Your task to perform on an android device: turn on javascript in the chrome app Image 0: 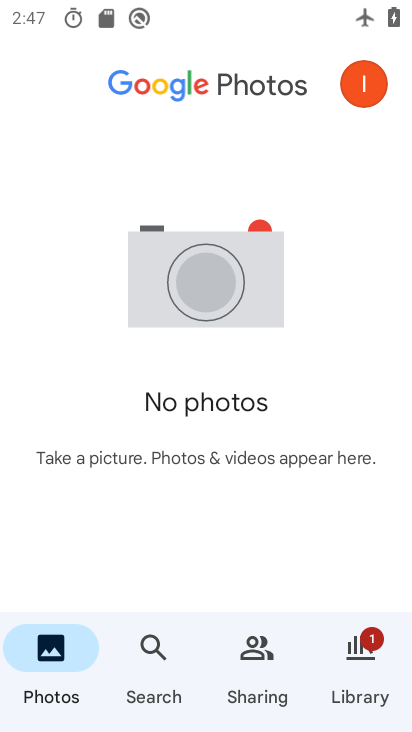
Step 0: press home button
Your task to perform on an android device: turn on javascript in the chrome app Image 1: 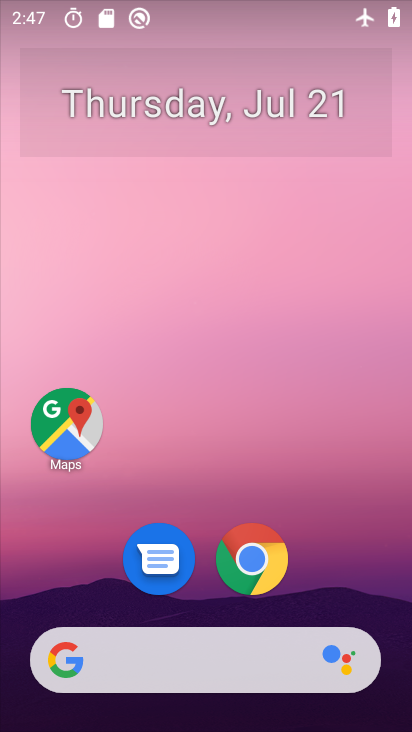
Step 1: drag from (361, 554) to (355, 204)
Your task to perform on an android device: turn on javascript in the chrome app Image 2: 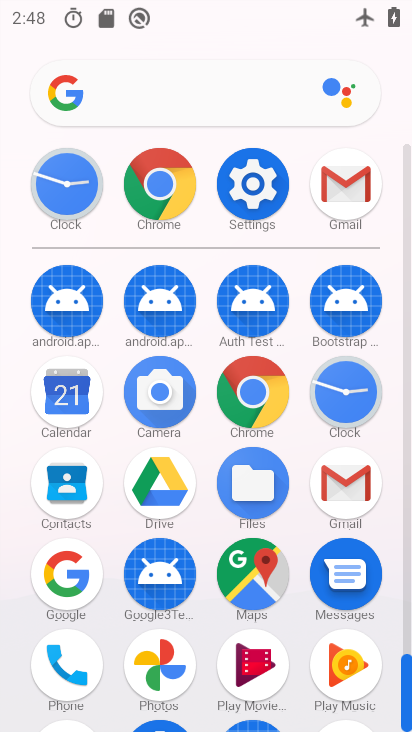
Step 2: click (260, 393)
Your task to perform on an android device: turn on javascript in the chrome app Image 3: 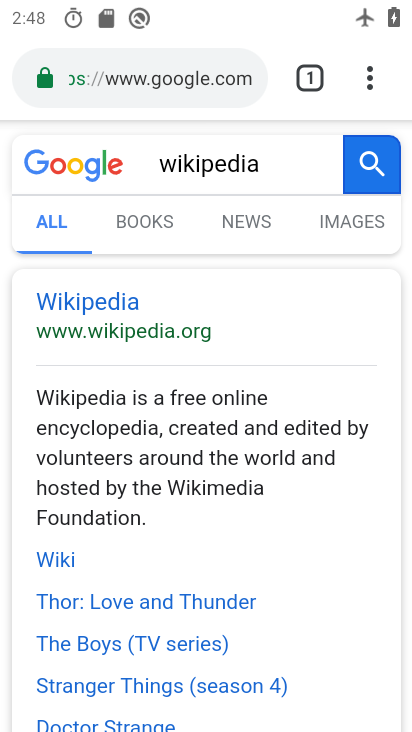
Step 3: click (369, 86)
Your task to perform on an android device: turn on javascript in the chrome app Image 4: 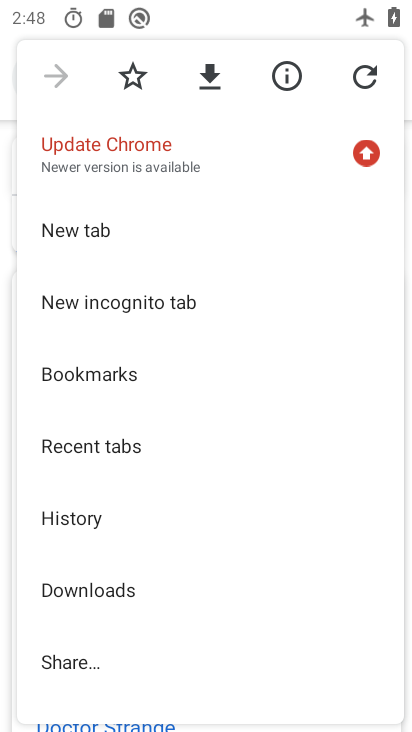
Step 4: drag from (327, 327) to (325, 241)
Your task to perform on an android device: turn on javascript in the chrome app Image 5: 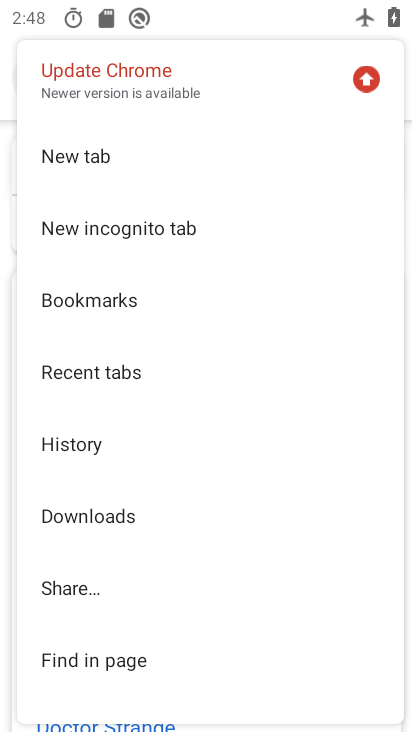
Step 5: drag from (315, 347) to (313, 274)
Your task to perform on an android device: turn on javascript in the chrome app Image 6: 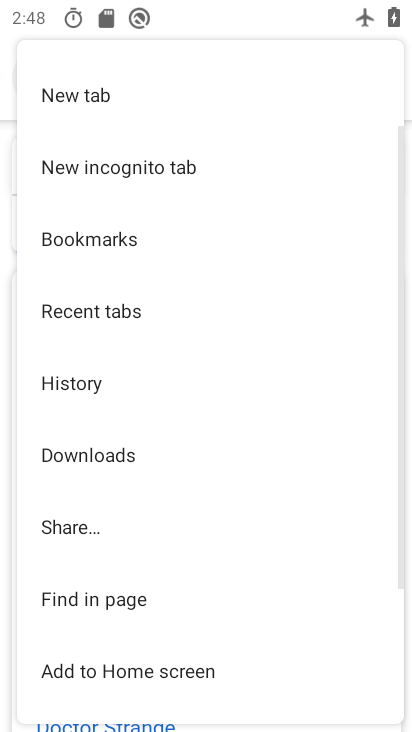
Step 6: drag from (308, 339) to (308, 262)
Your task to perform on an android device: turn on javascript in the chrome app Image 7: 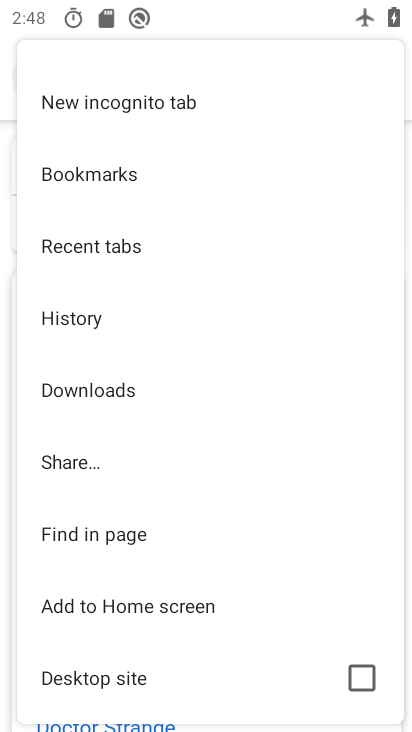
Step 7: drag from (294, 352) to (294, 278)
Your task to perform on an android device: turn on javascript in the chrome app Image 8: 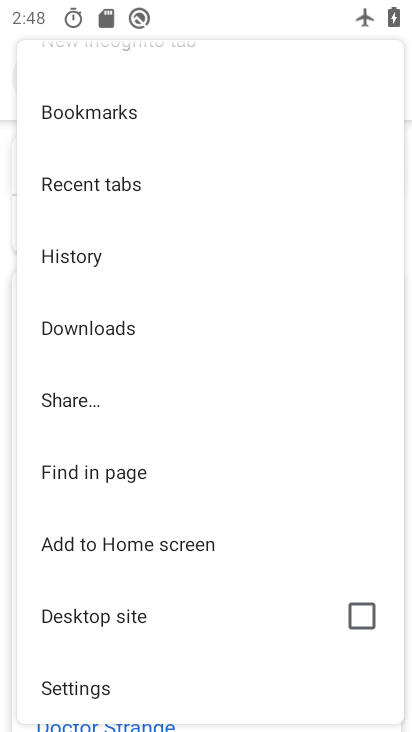
Step 8: drag from (290, 366) to (290, 263)
Your task to perform on an android device: turn on javascript in the chrome app Image 9: 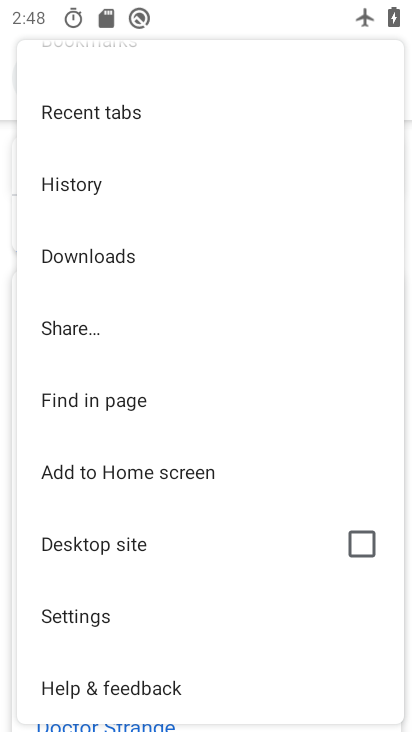
Step 9: drag from (281, 394) to (282, 302)
Your task to perform on an android device: turn on javascript in the chrome app Image 10: 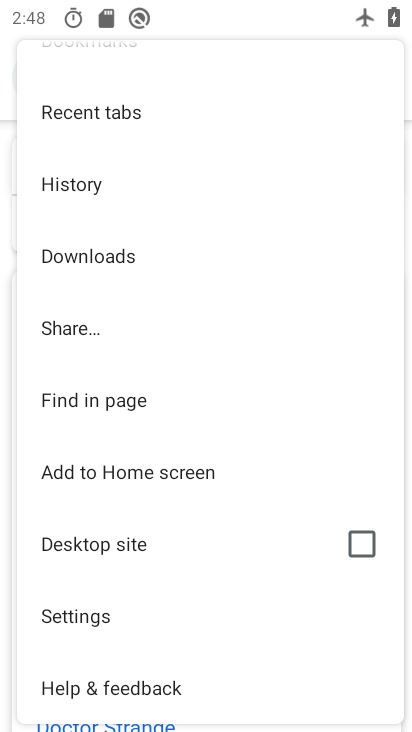
Step 10: click (259, 619)
Your task to perform on an android device: turn on javascript in the chrome app Image 11: 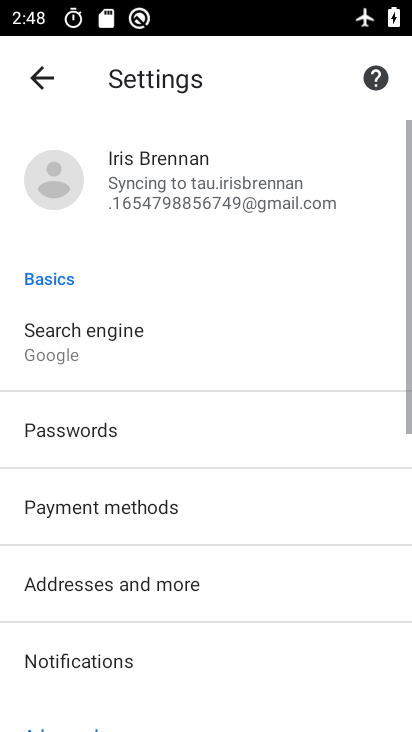
Step 11: drag from (260, 604) to (261, 511)
Your task to perform on an android device: turn on javascript in the chrome app Image 12: 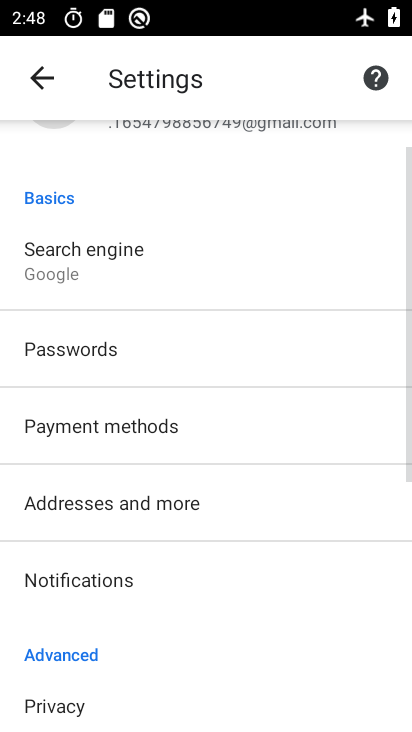
Step 12: drag from (261, 566) to (275, 347)
Your task to perform on an android device: turn on javascript in the chrome app Image 13: 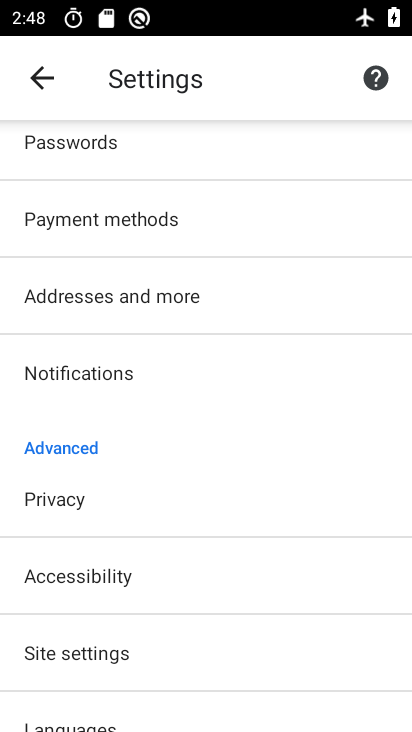
Step 13: drag from (298, 513) to (298, 360)
Your task to perform on an android device: turn on javascript in the chrome app Image 14: 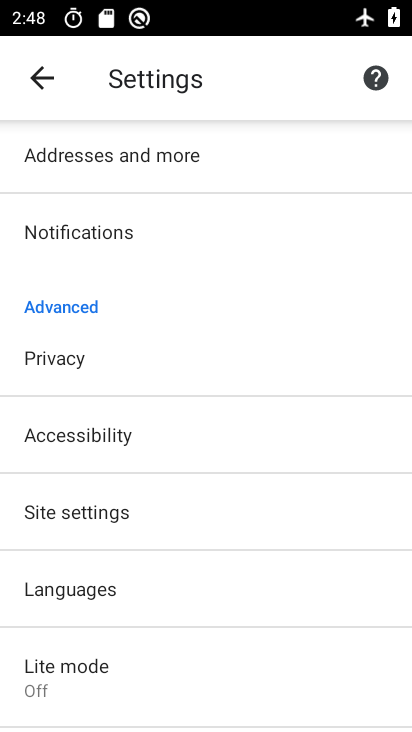
Step 14: drag from (282, 523) to (284, 411)
Your task to perform on an android device: turn on javascript in the chrome app Image 15: 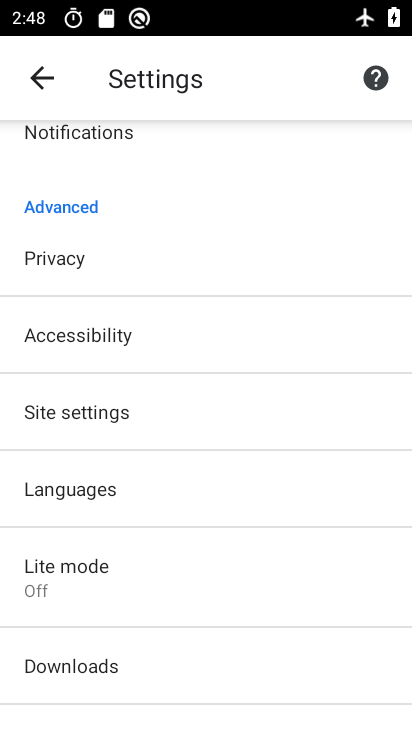
Step 15: click (285, 413)
Your task to perform on an android device: turn on javascript in the chrome app Image 16: 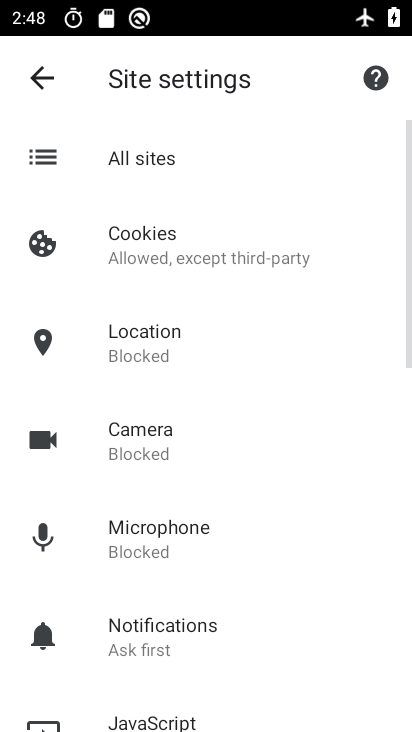
Step 16: drag from (301, 513) to (302, 395)
Your task to perform on an android device: turn on javascript in the chrome app Image 17: 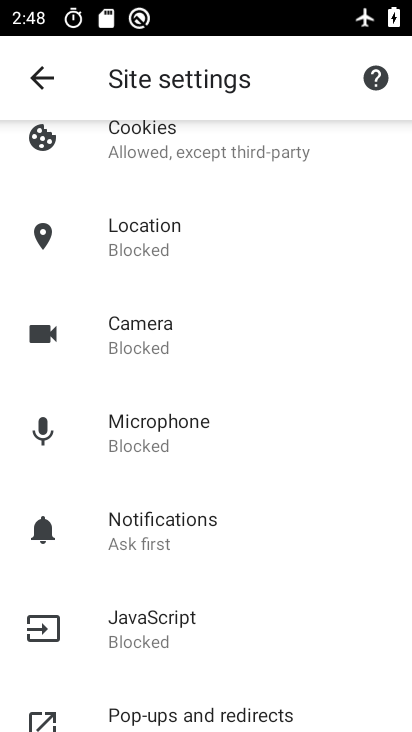
Step 17: drag from (309, 476) to (310, 395)
Your task to perform on an android device: turn on javascript in the chrome app Image 18: 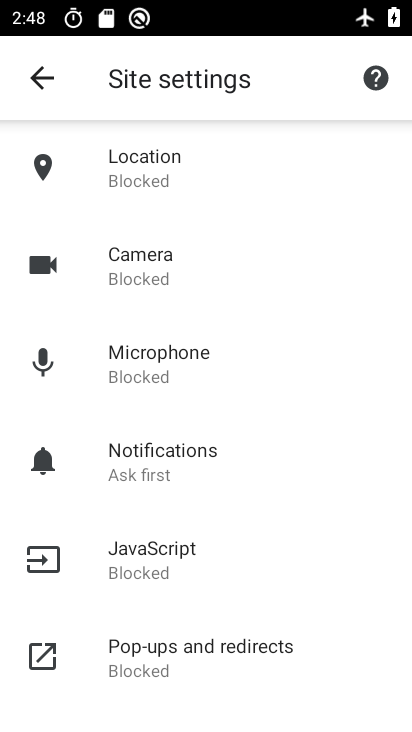
Step 18: drag from (300, 522) to (298, 431)
Your task to perform on an android device: turn on javascript in the chrome app Image 19: 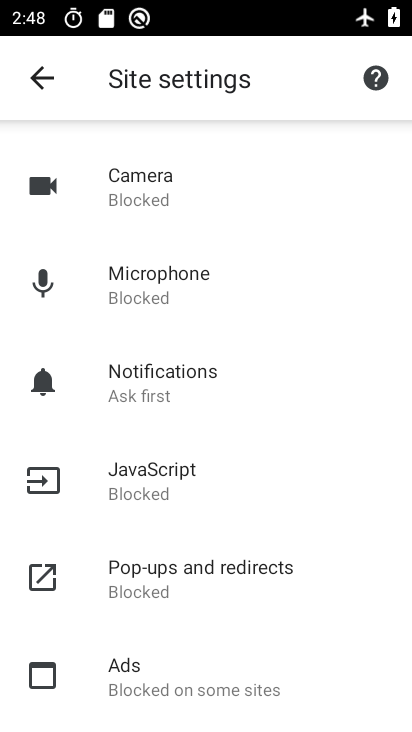
Step 19: drag from (303, 493) to (300, 406)
Your task to perform on an android device: turn on javascript in the chrome app Image 20: 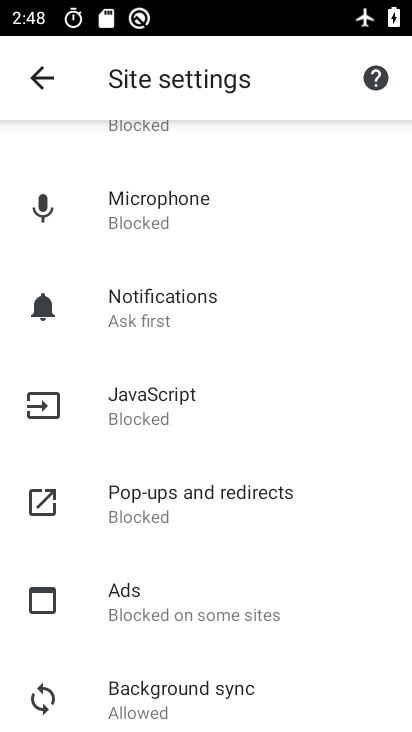
Step 20: click (259, 413)
Your task to perform on an android device: turn on javascript in the chrome app Image 21: 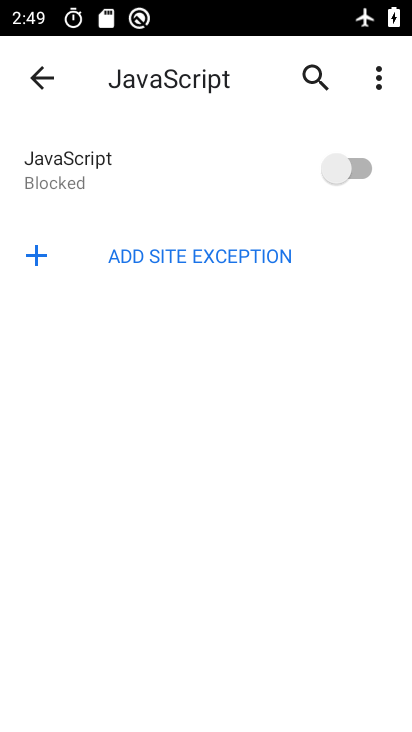
Step 21: click (329, 178)
Your task to perform on an android device: turn on javascript in the chrome app Image 22: 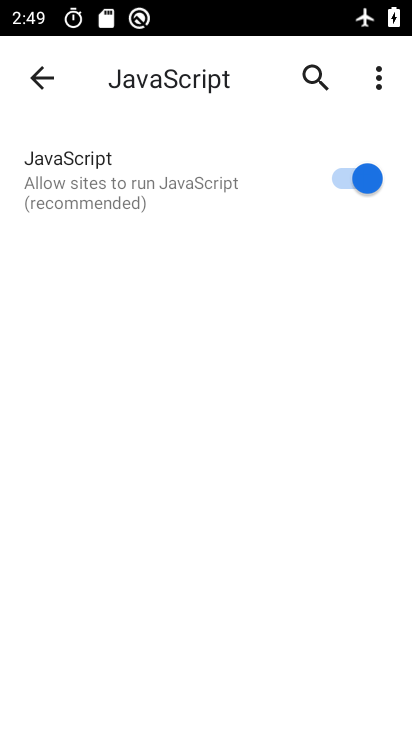
Step 22: task complete